Your task to perform on an android device: Open internet settings Image 0: 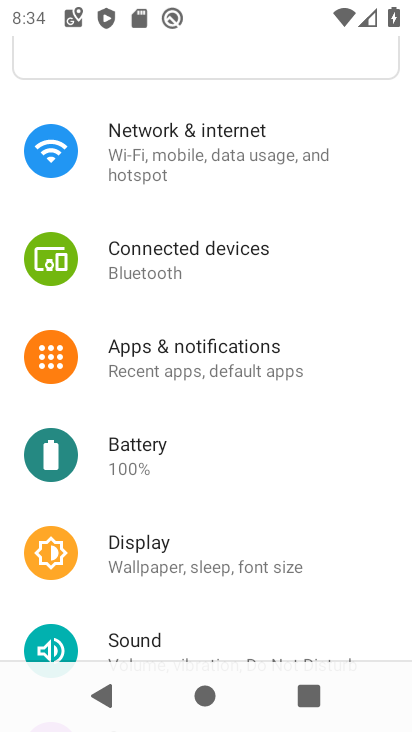
Step 0: click (184, 128)
Your task to perform on an android device: Open internet settings Image 1: 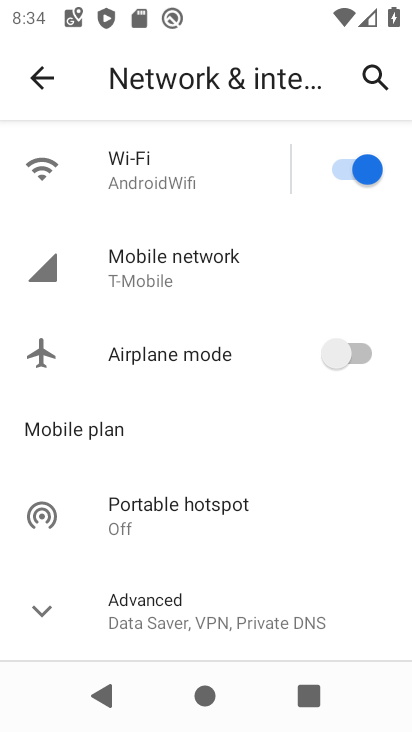
Step 1: task complete